Your task to perform on an android device: turn off javascript in the chrome app Image 0: 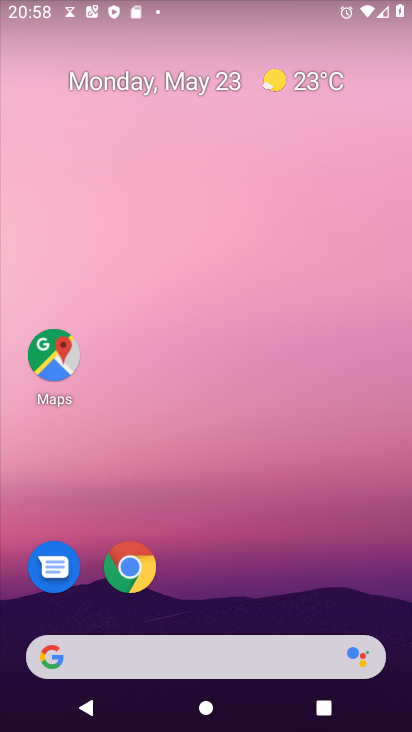
Step 0: drag from (256, 595) to (285, 252)
Your task to perform on an android device: turn off javascript in the chrome app Image 1: 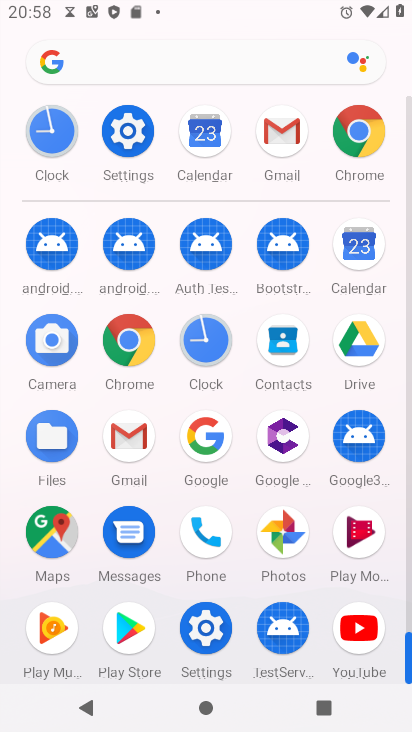
Step 1: click (122, 335)
Your task to perform on an android device: turn off javascript in the chrome app Image 2: 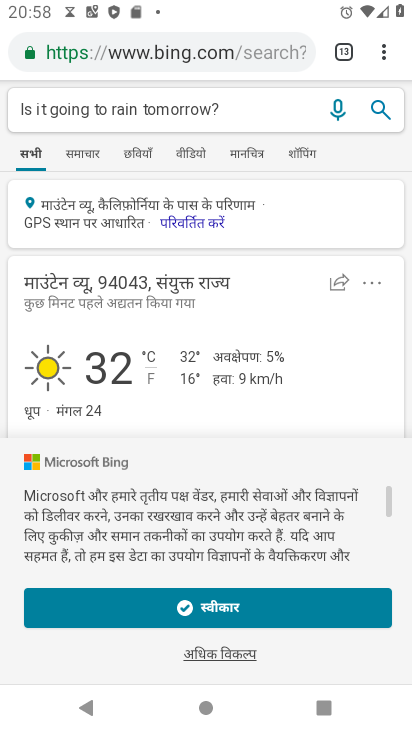
Step 2: click (378, 56)
Your task to perform on an android device: turn off javascript in the chrome app Image 3: 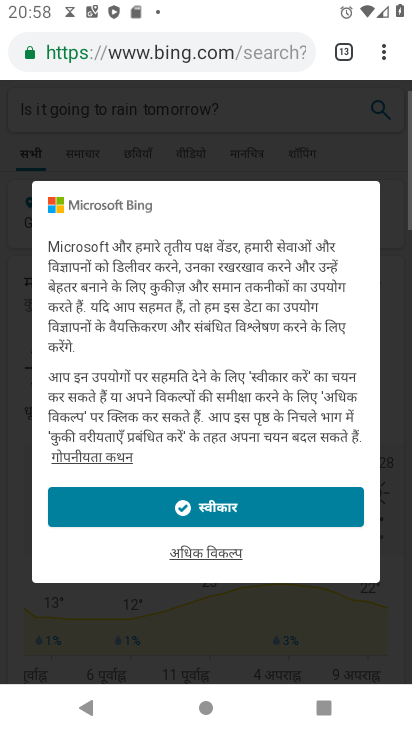
Step 3: click (375, 53)
Your task to perform on an android device: turn off javascript in the chrome app Image 4: 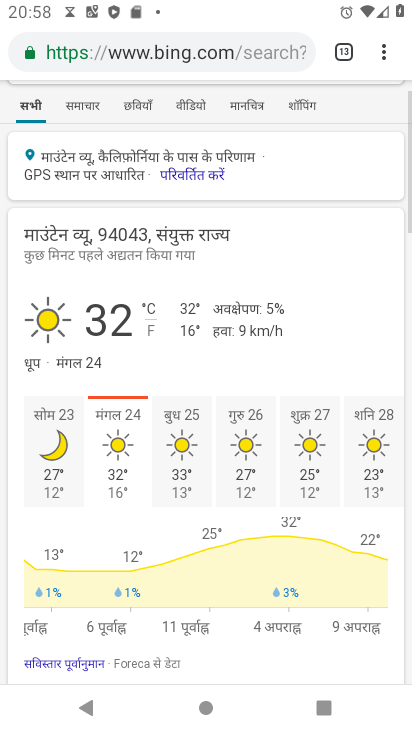
Step 4: click (377, 53)
Your task to perform on an android device: turn off javascript in the chrome app Image 5: 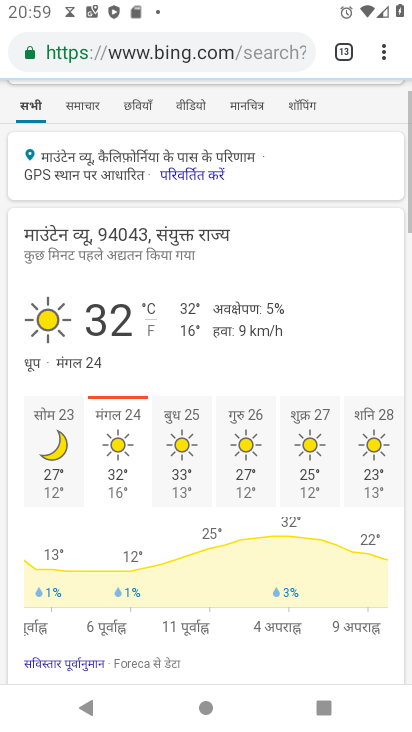
Step 5: click (380, 52)
Your task to perform on an android device: turn off javascript in the chrome app Image 6: 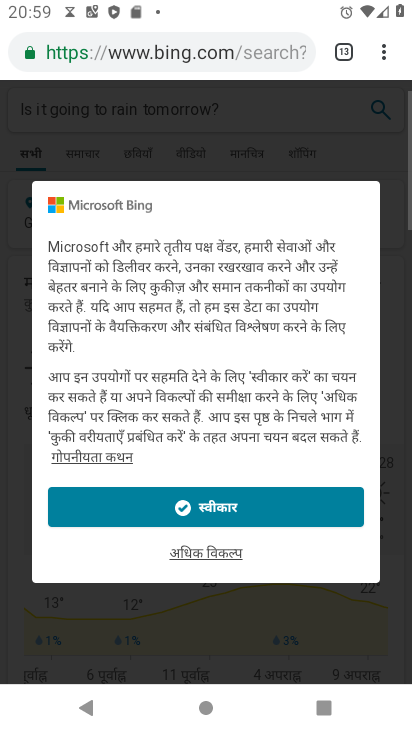
Step 6: click (377, 52)
Your task to perform on an android device: turn off javascript in the chrome app Image 7: 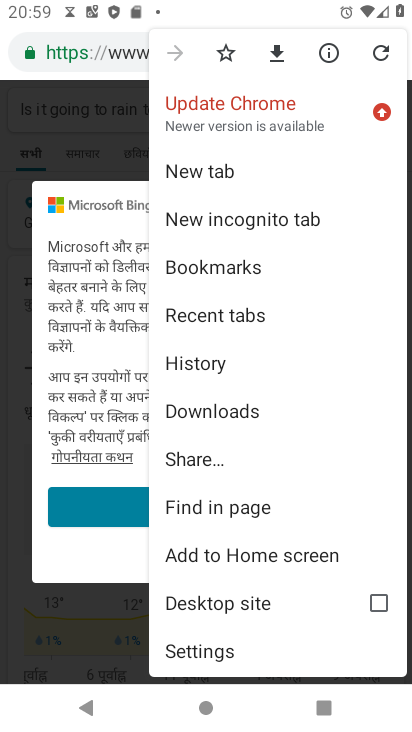
Step 7: click (196, 650)
Your task to perform on an android device: turn off javascript in the chrome app Image 8: 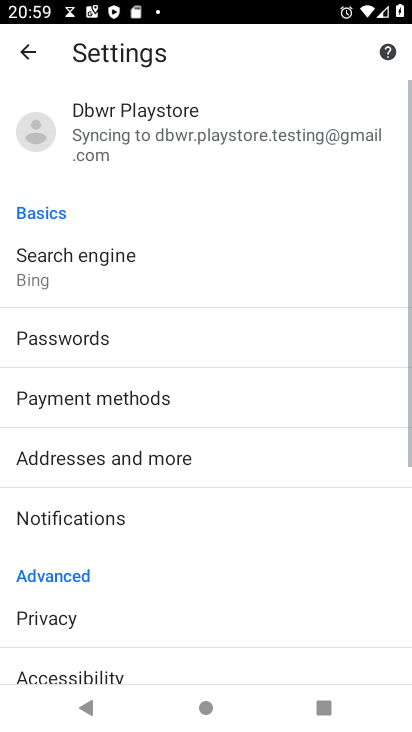
Step 8: drag from (196, 622) to (288, 315)
Your task to perform on an android device: turn off javascript in the chrome app Image 9: 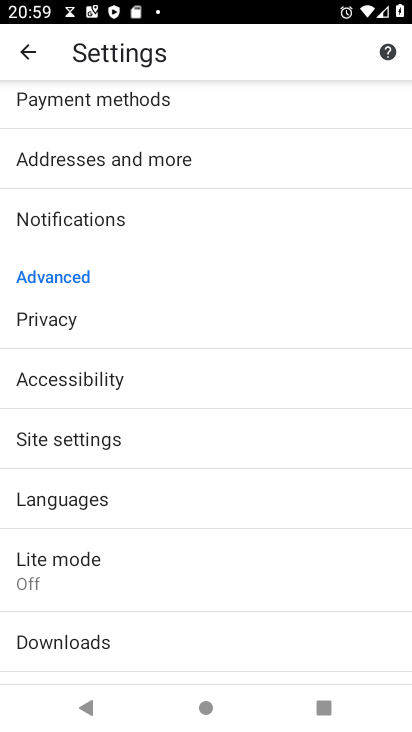
Step 9: click (166, 434)
Your task to perform on an android device: turn off javascript in the chrome app Image 10: 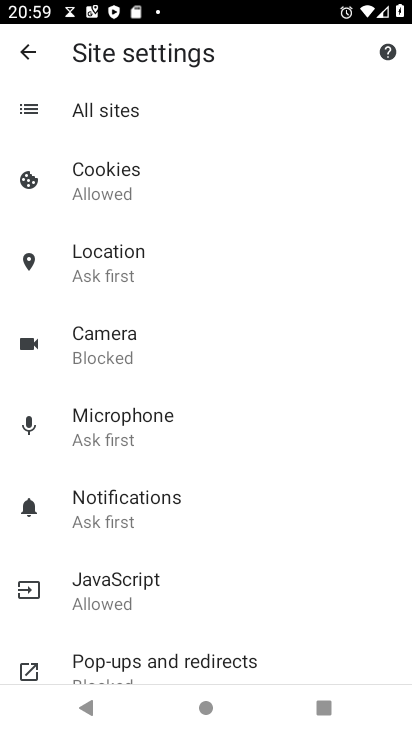
Step 10: click (158, 592)
Your task to perform on an android device: turn off javascript in the chrome app Image 11: 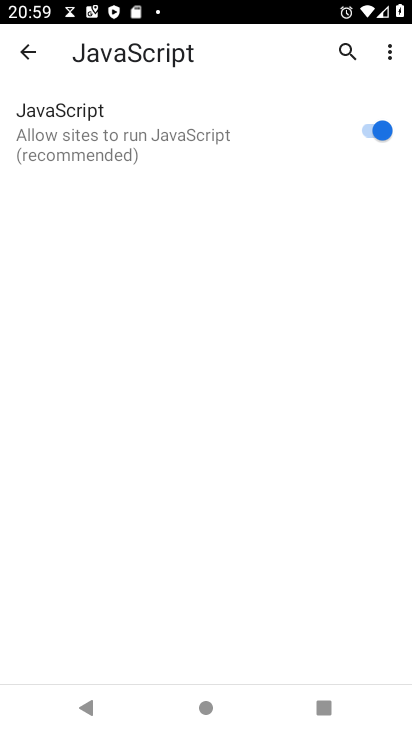
Step 11: click (377, 117)
Your task to perform on an android device: turn off javascript in the chrome app Image 12: 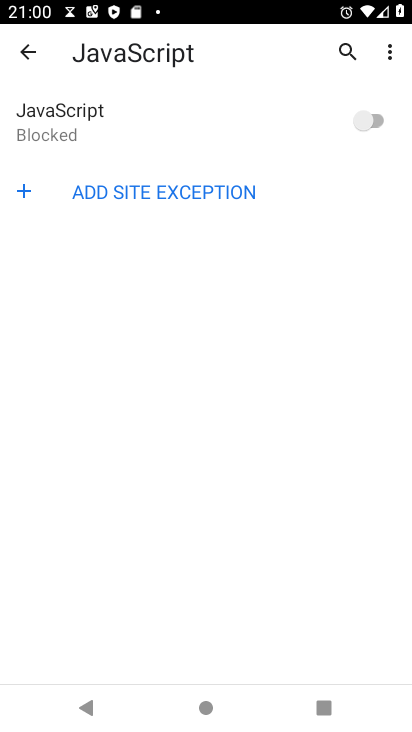
Step 12: task complete